Your task to perform on an android device: choose inbox layout in the gmail app Image 0: 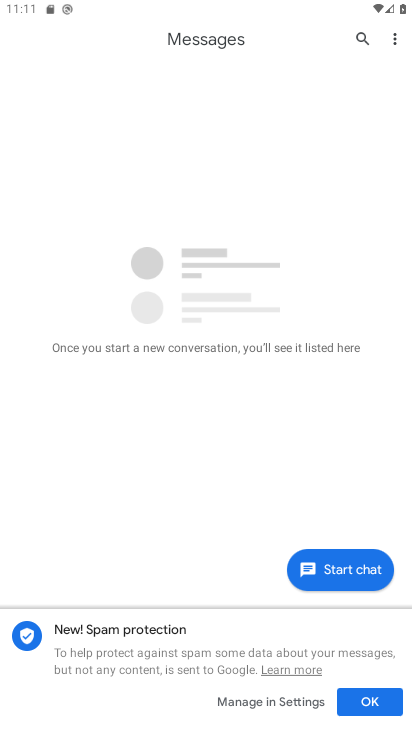
Step 0: press home button
Your task to perform on an android device: choose inbox layout in the gmail app Image 1: 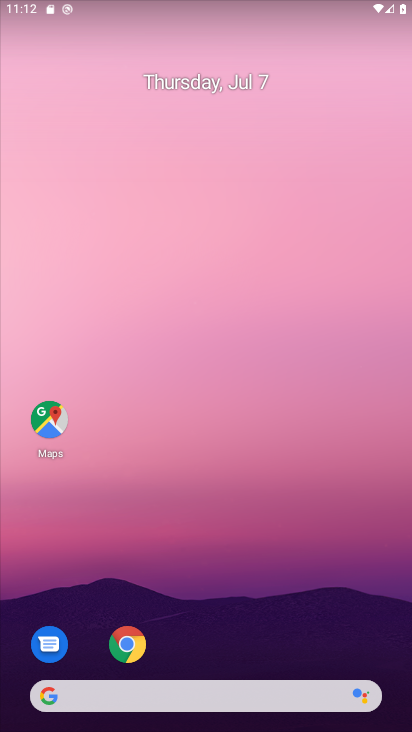
Step 1: drag from (197, 597) to (111, 104)
Your task to perform on an android device: choose inbox layout in the gmail app Image 2: 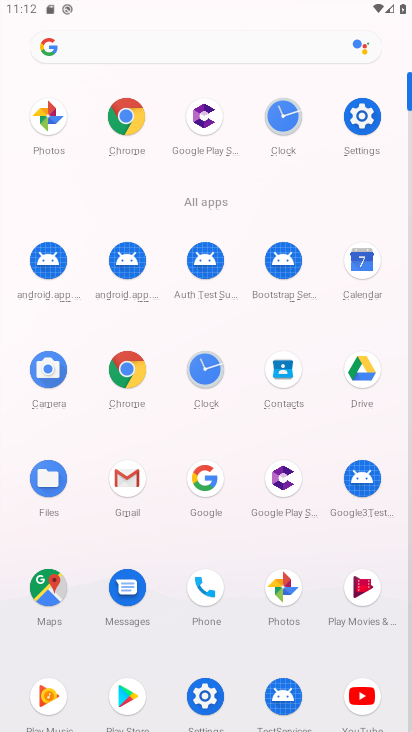
Step 2: click (116, 484)
Your task to perform on an android device: choose inbox layout in the gmail app Image 3: 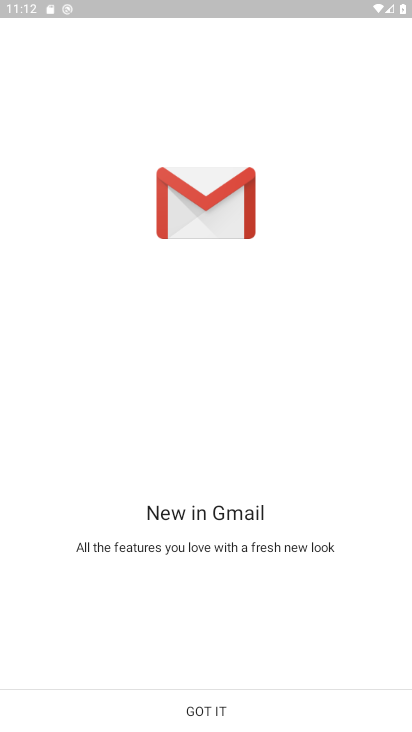
Step 3: click (210, 719)
Your task to perform on an android device: choose inbox layout in the gmail app Image 4: 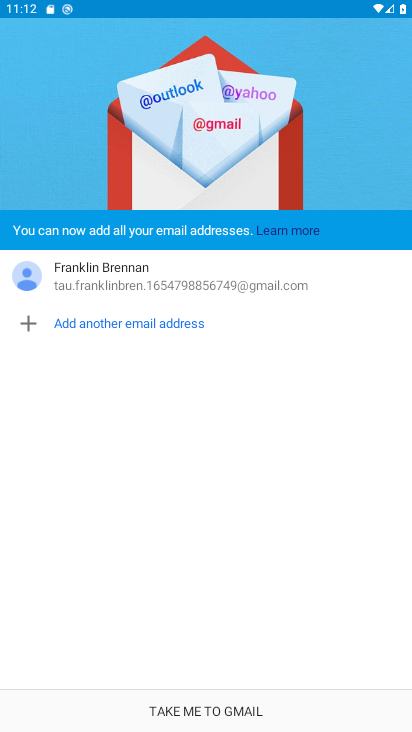
Step 4: click (210, 719)
Your task to perform on an android device: choose inbox layout in the gmail app Image 5: 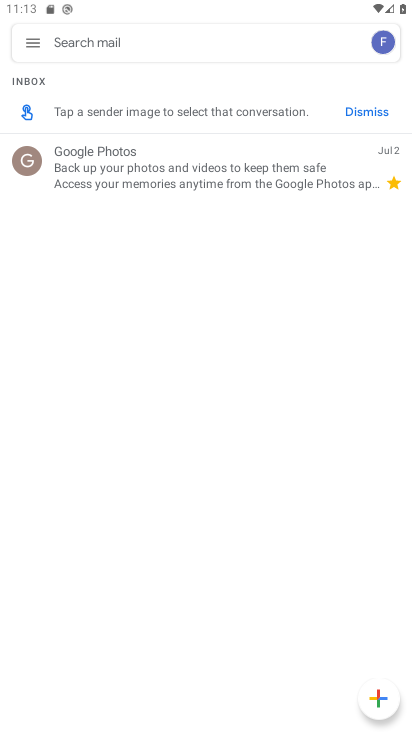
Step 5: click (40, 42)
Your task to perform on an android device: choose inbox layout in the gmail app Image 6: 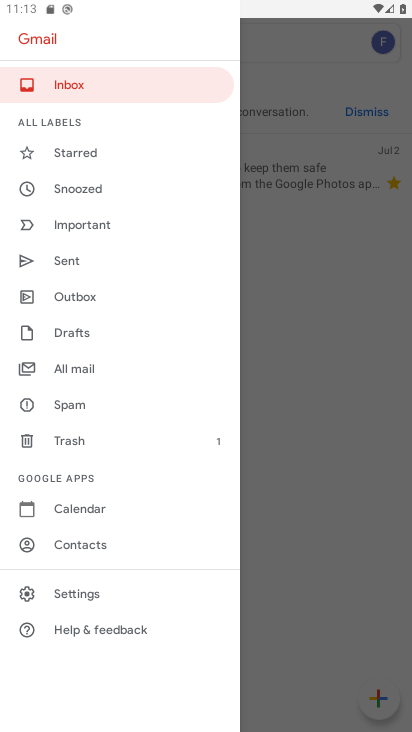
Step 6: click (90, 591)
Your task to perform on an android device: choose inbox layout in the gmail app Image 7: 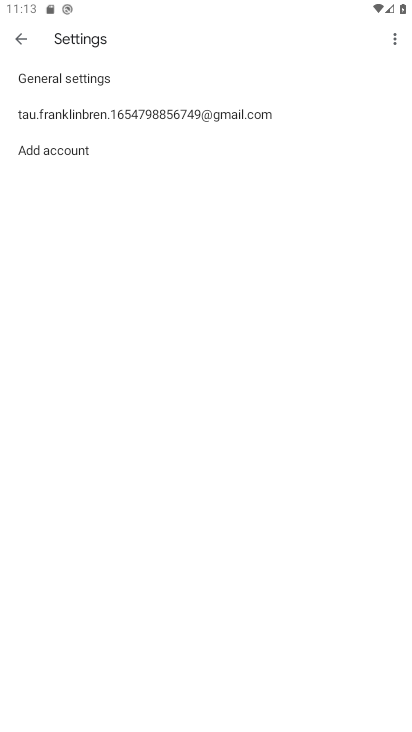
Step 7: click (98, 116)
Your task to perform on an android device: choose inbox layout in the gmail app Image 8: 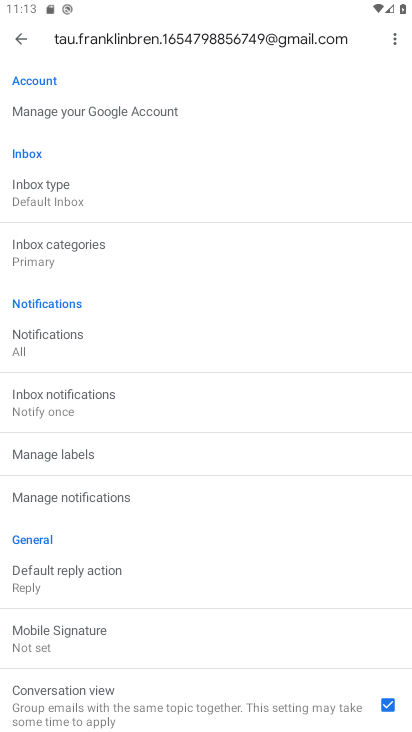
Step 8: click (32, 197)
Your task to perform on an android device: choose inbox layout in the gmail app Image 9: 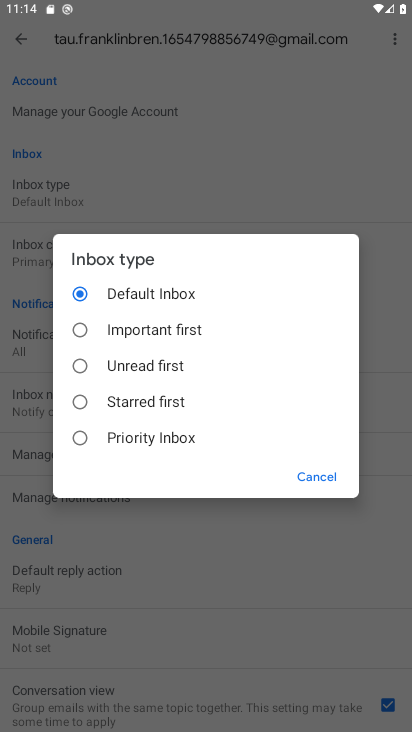
Step 9: click (309, 514)
Your task to perform on an android device: choose inbox layout in the gmail app Image 10: 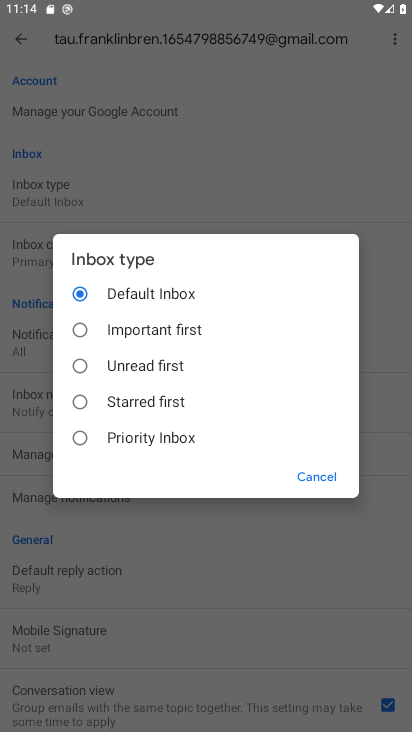
Step 10: click (318, 480)
Your task to perform on an android device: choose inbox layout in the gmail app Image 11: 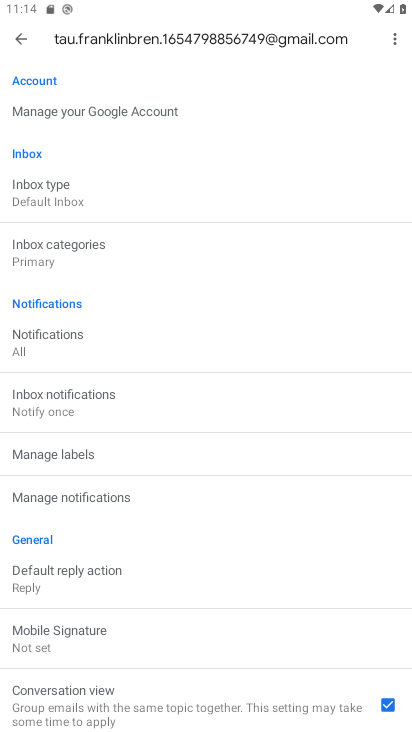
Step 11: task complete